Your task to perform on an android device: turn off notifications settings in the gmail app Image 0: 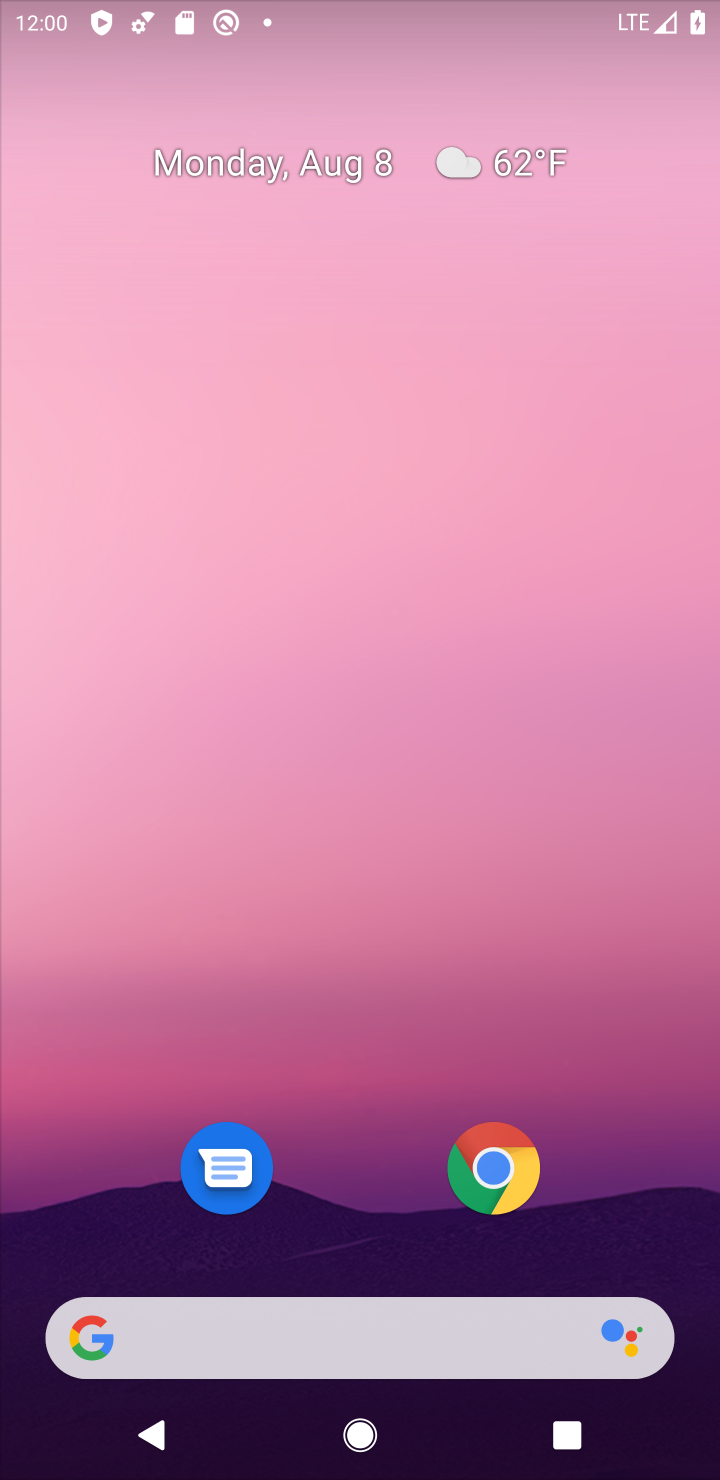
Step 0: press home button
Your task to perform on an android device: turn off notifications settings in the gmail app Image 1: 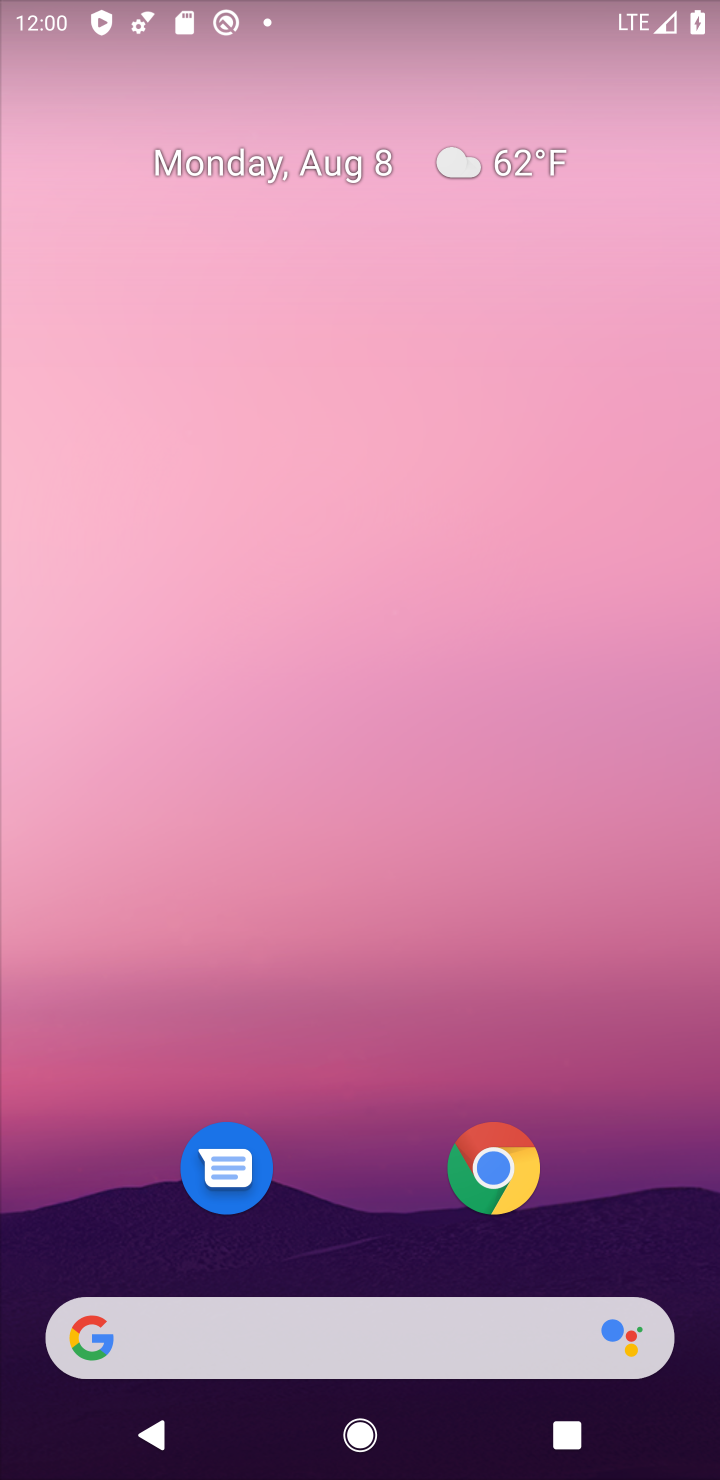
Step 1: drag from (436, 939) to (464, 374)
Your task to perform on an android device: turn off notifications settings in the gmail app Image 2: 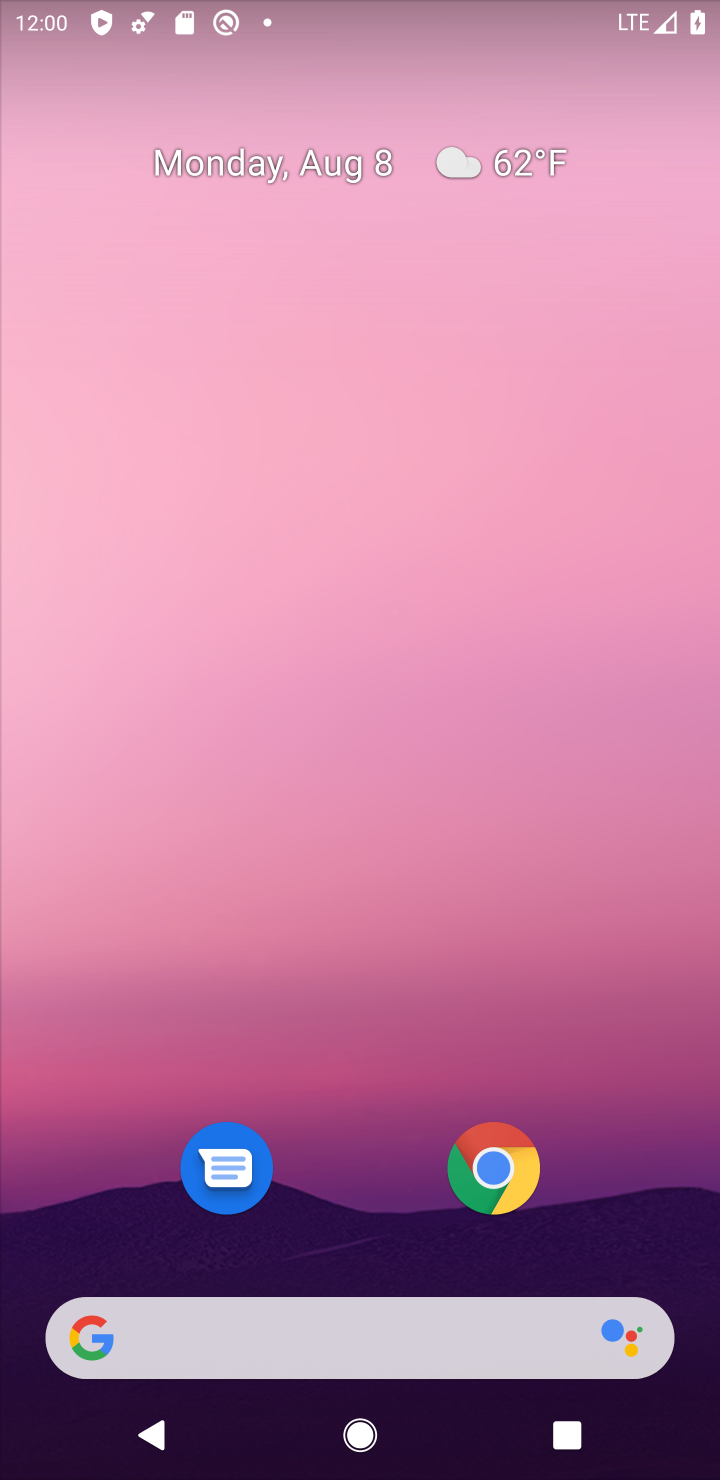
Step 2: drag from (351, 1242) to (434, 7)
Your task to perform on an android device: turn off notifications settings in the gmail app Image 3: 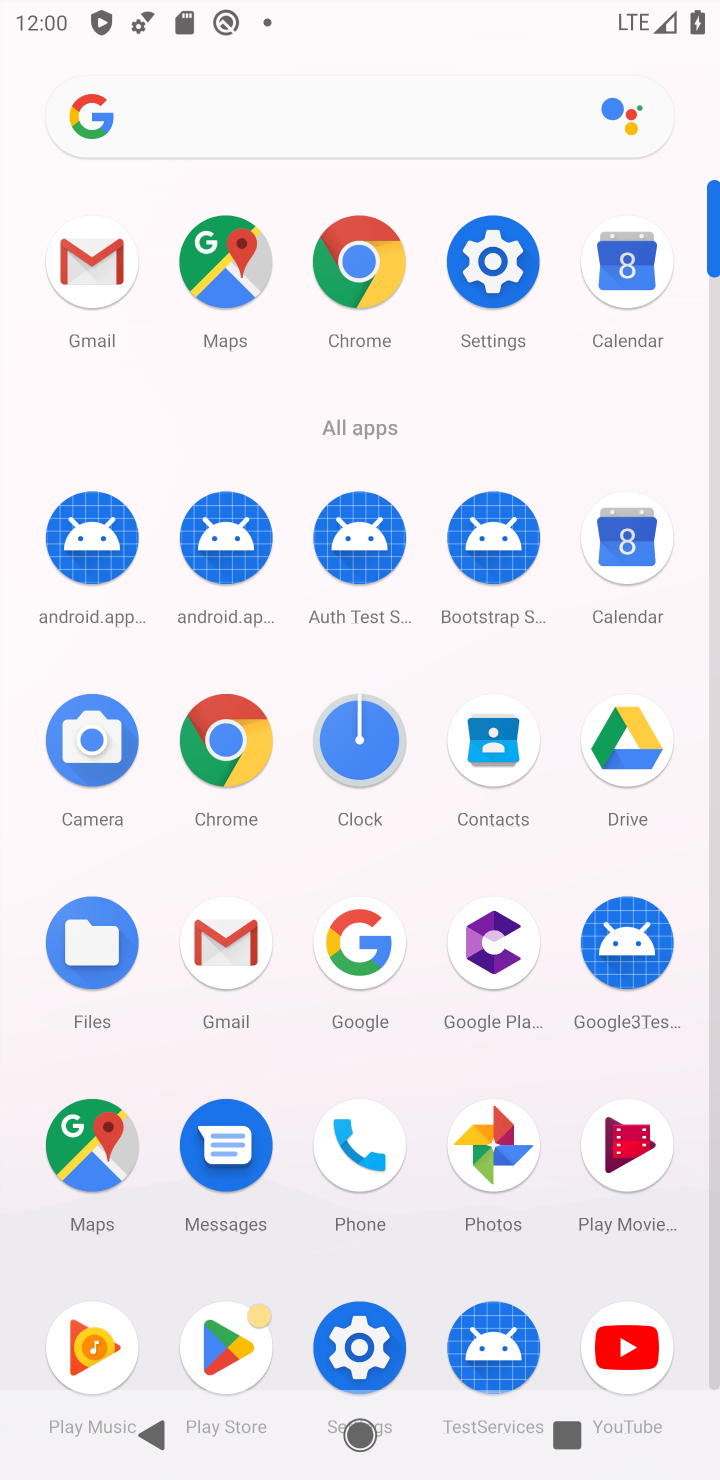
Step 3: click (75, 275)
Your task to perform on an android device: turn off notifications settings in the gmail app Image 4: 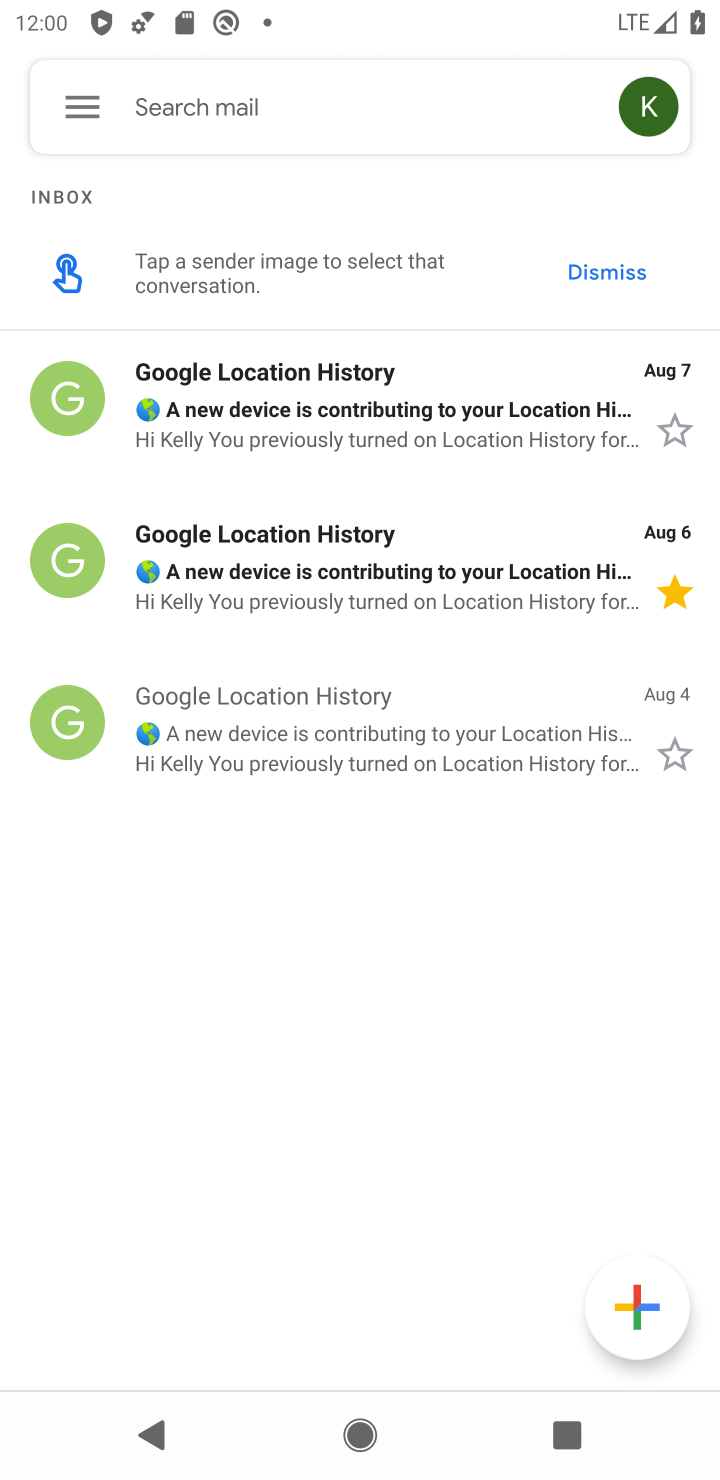
Step 4: click (85, 124)
Your task to perform on an android device: turn off notifications settings in the gmail app Image 5: 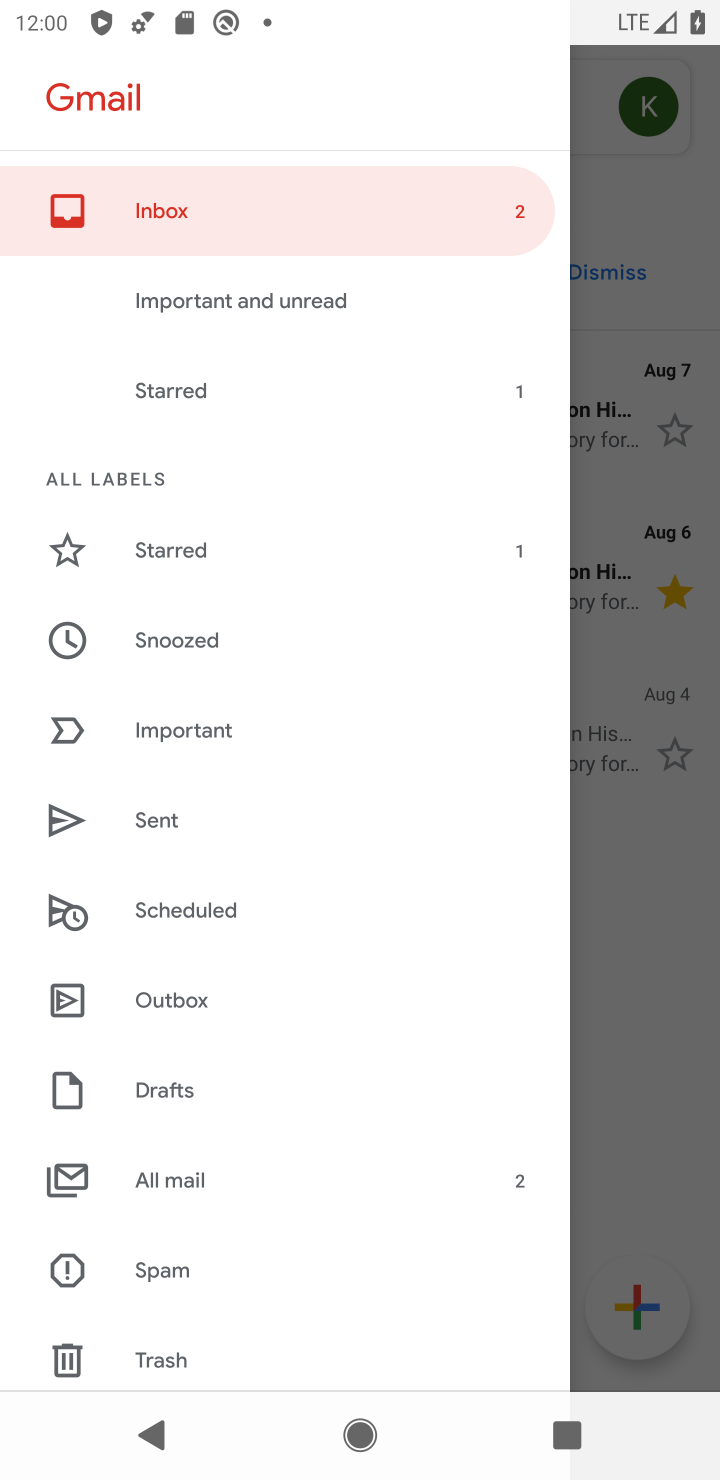
Step 5: drag from (353, 1154) to (504, 0)
Your task to perform on an android device: turn off notifications settings in the gmail app Image 6: 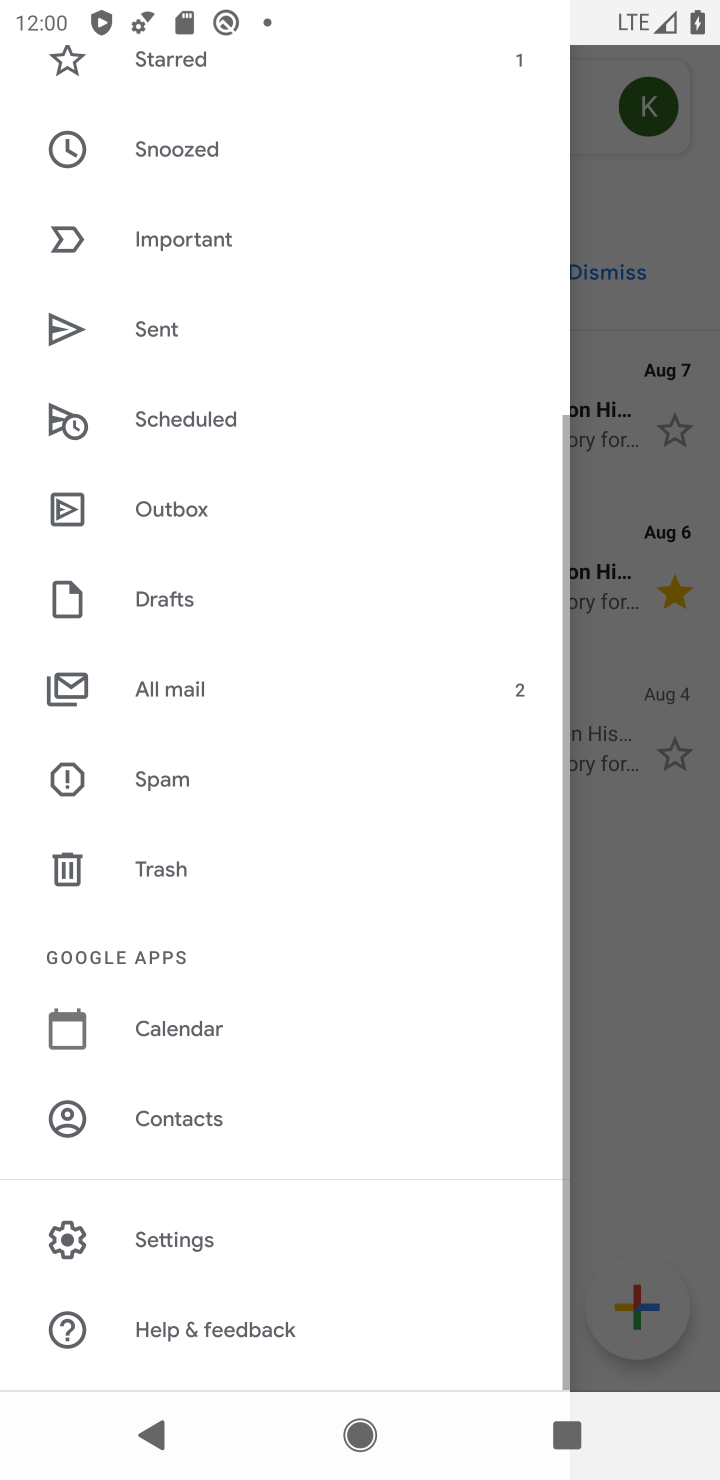
Step 6: click (181, 1243)
Your task to perform on an android device: turn off notifications settings in the gmail app Image 7: 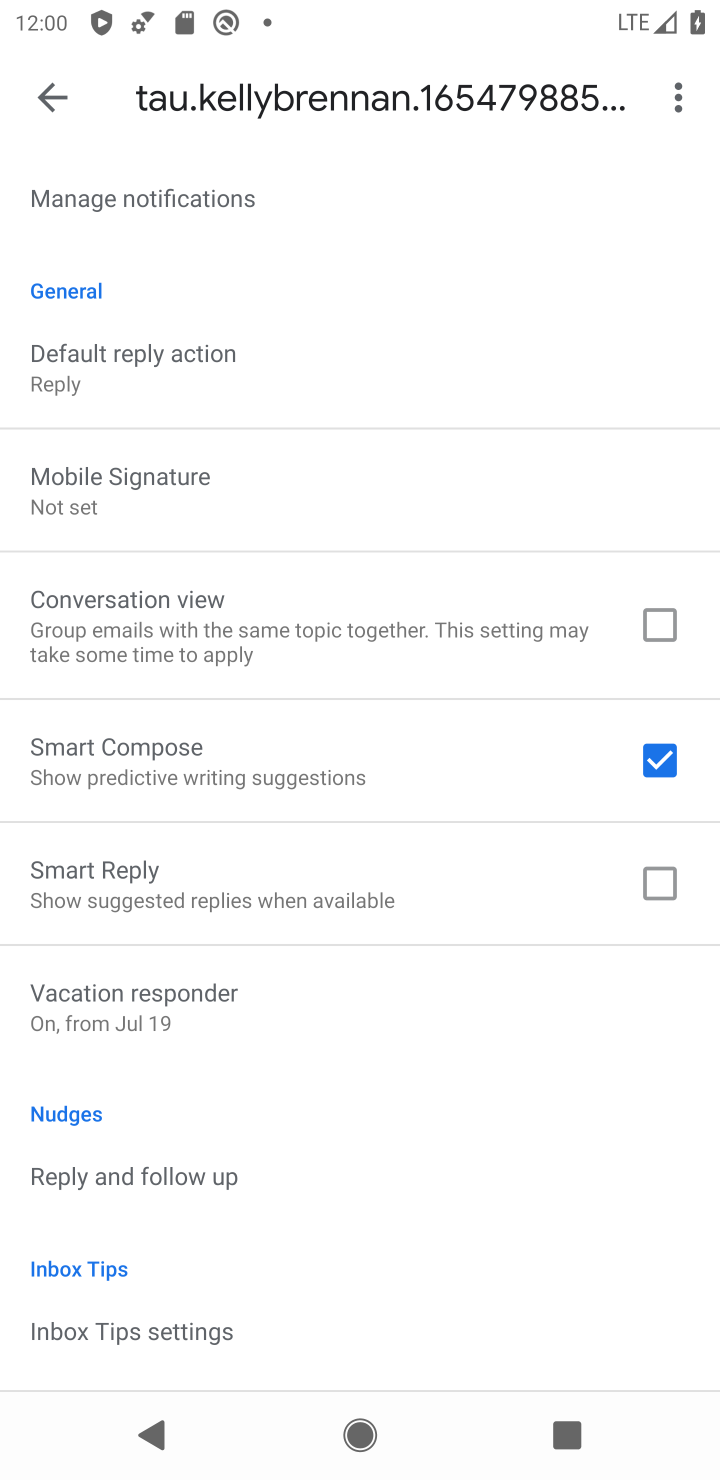
Step 7: drag from (426, 265) to (385, 870)
Your task to perform on an android device: turn off notifications settings in the gmail app Image 8: 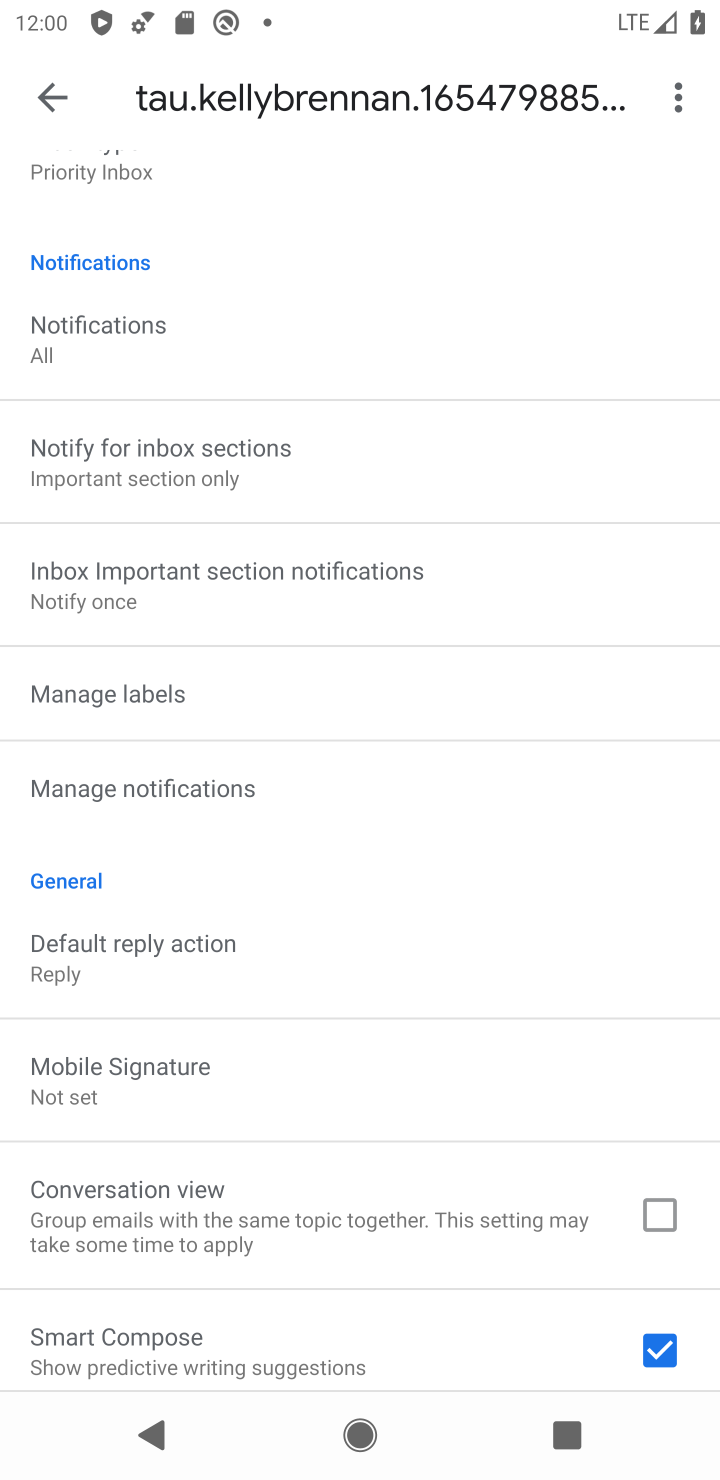
Step 8: click (136, 784)
Your task to perform on an android device: turn off notifications settings in the gmail app Image 9: 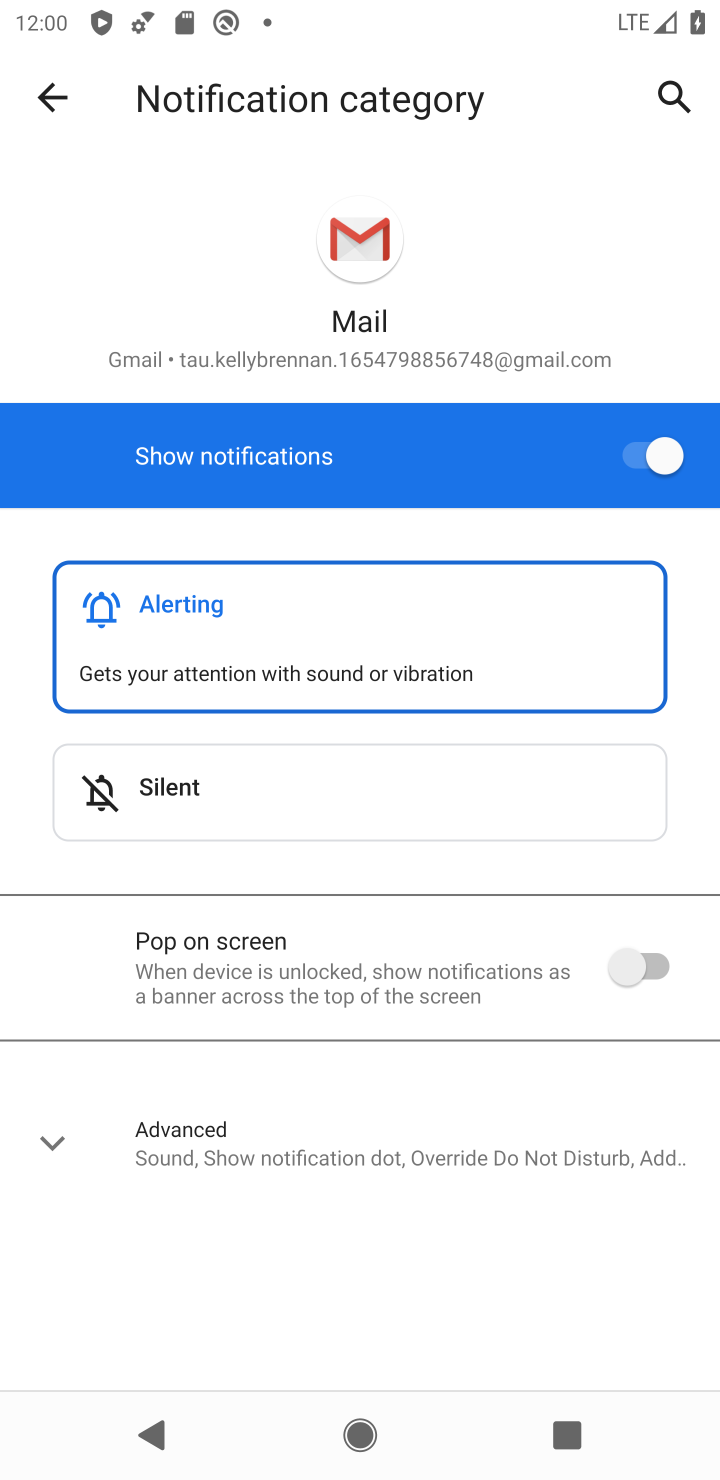
Step 9: click (665, 451)
Your task to perform on an android device: turn off notifications settings in the gmail app Image 10: 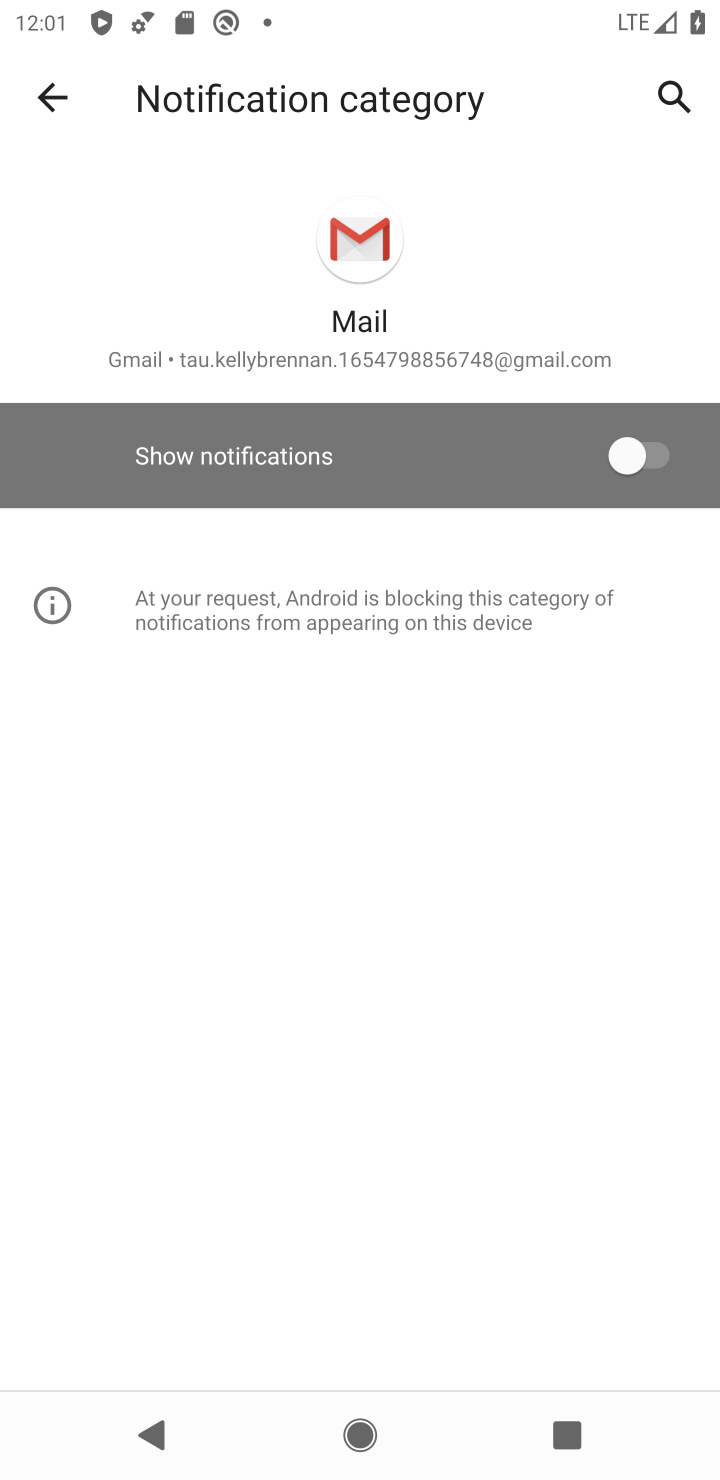
Step 10: task complete